Your task to perform on an android device: Go to location settings Image 0: 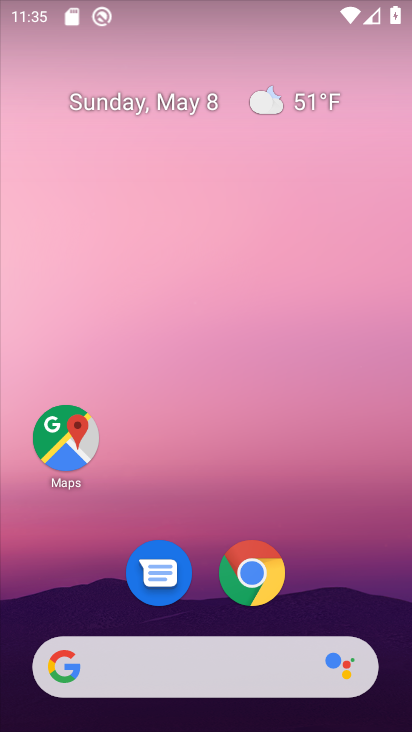
Step 0: drag from (201, 640) to (198, 279)
Your task to perform on an android device: Go to location settings Image 1: 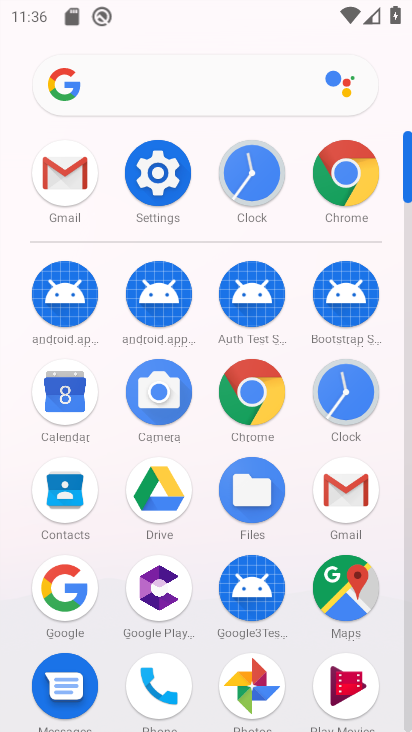
Step 1: click (141, 169)
Your task to perform on an android device: Go to location settings Image 2: 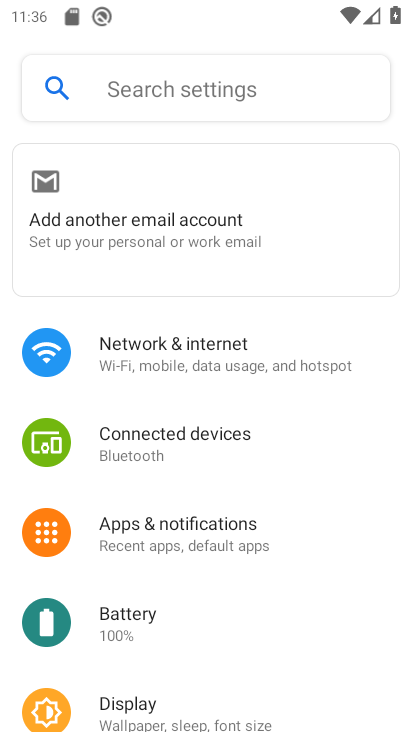
Step 2: drag from (190, 707) to (225, 341)
Your task to perform on an android device: Go to location settings Image 3: 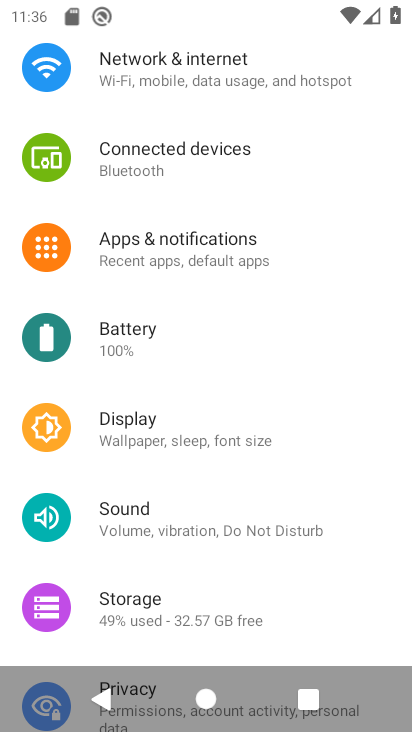
Step 3: drag from (187, 625) to (184, 301)
Your task to perform on an android device: Go to location settings Image 4: 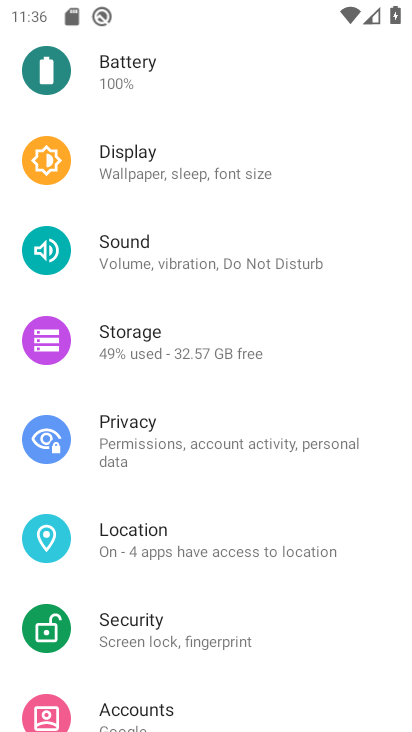
Step 4: click (129, 537)
Your task to perform on an android device: Go to location settings Image 5: 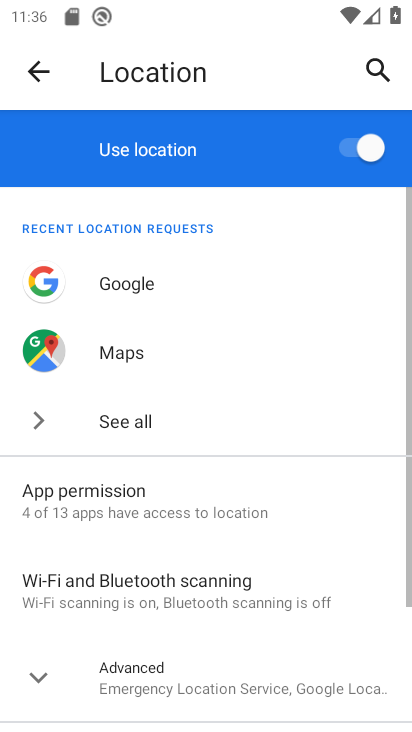
Step 5: click (141, 679)
Your task to perform on an android device: Go to location settings Image 6: 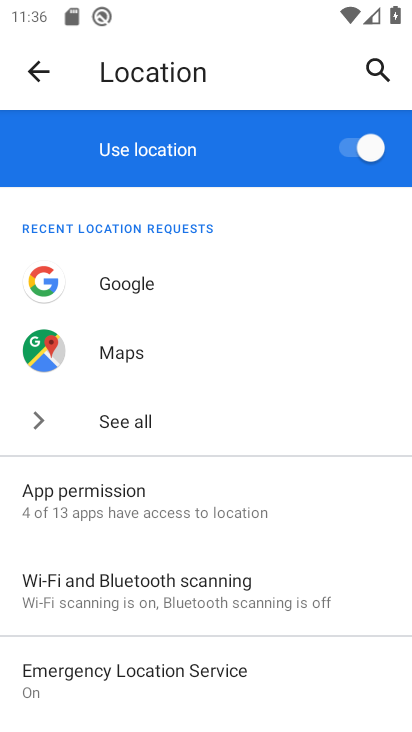
Step 6: task complete